Your task to perform on an android device: turn smart compose on in the gmail app Image 0: 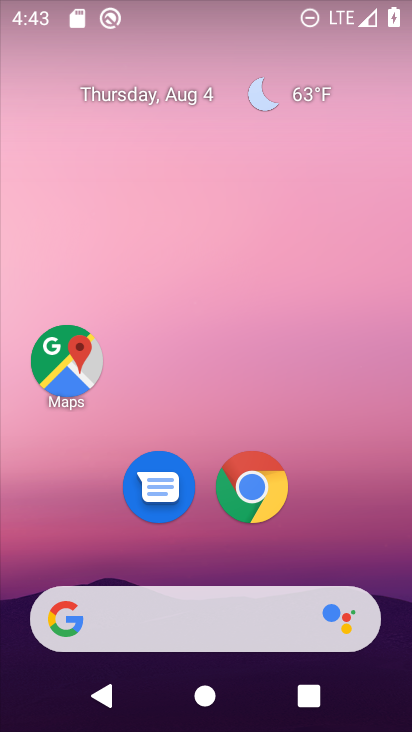
Step 0: drag from (174, 572) to (242, 55)
Your task to perform on an android device: turn smart compose on in the gmail app Image 1: 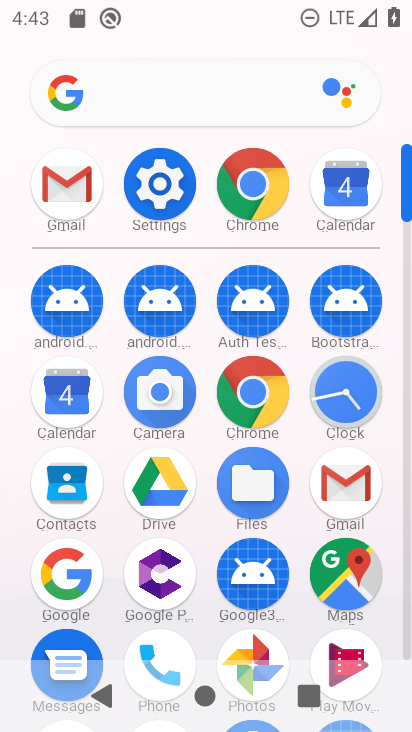
Step 1: click (67, 186)
Your task to perform on an android device: turn smart compose on in the gmail app Image 2: 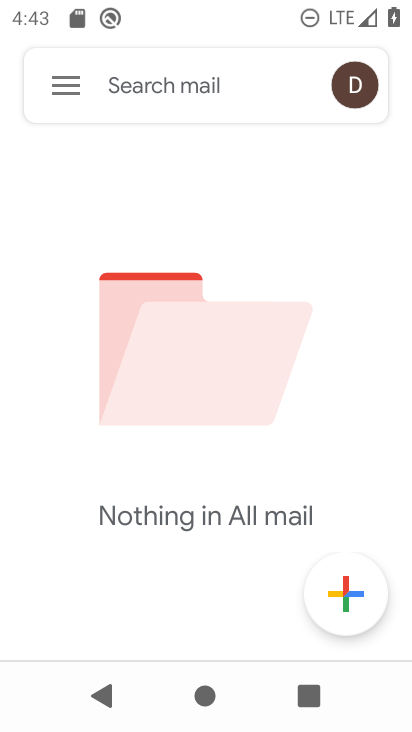
Step 2: click (57, 85)
Your task to perform on an android device: turn smart compose on in the gmail app Image 3: 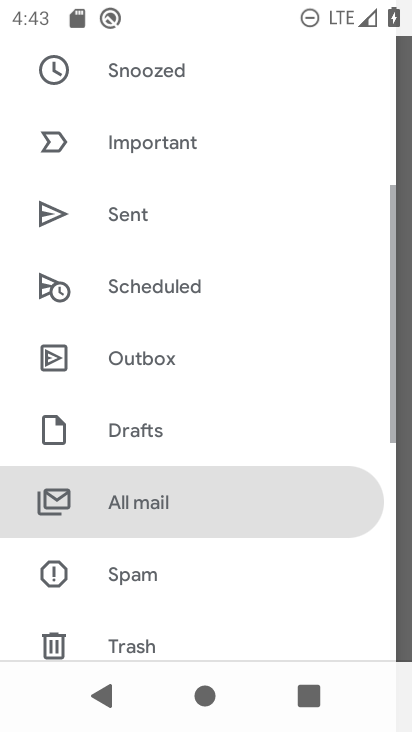
Step 3: drag from (187, 572) to (260, 12)
Your task to perform on an android device: turn smart compose on in the gmail app Image 4: 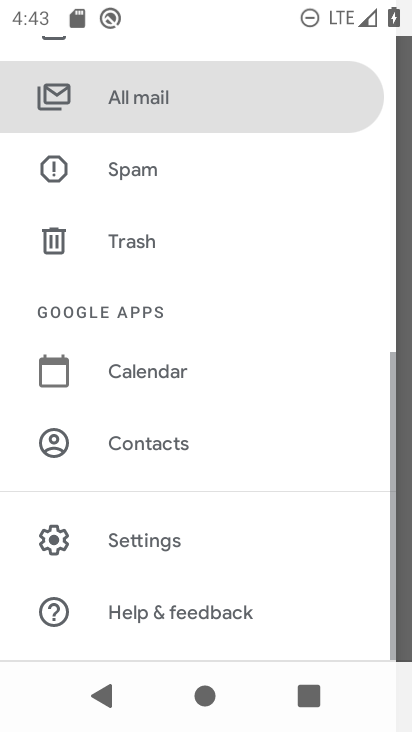
Step 4: click (167, 538)
Your task to perform on an android device: turn smart compose on in the gmail app Image 5: 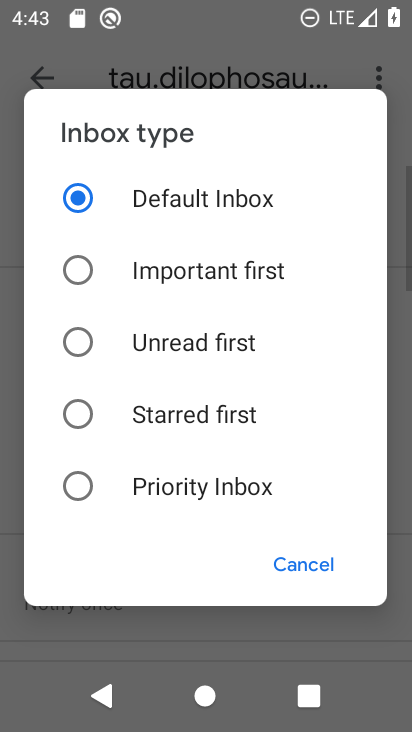
Step 5: click (273, 543)
Your task to perform on an android device: turn smart compose on in the gmail app Image 6: 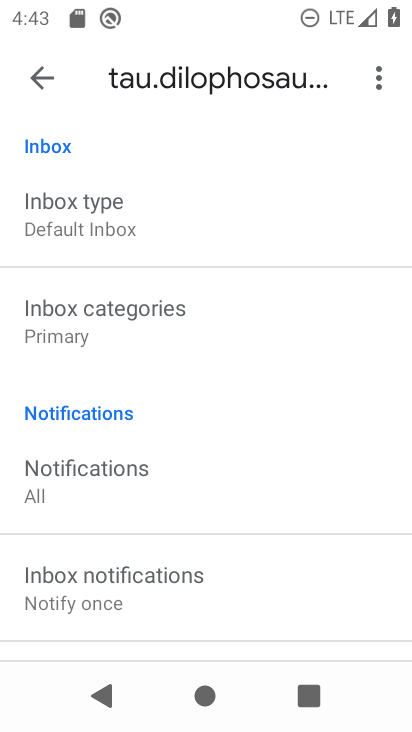
Step 6: click (224, 175)
Your task to perform on an android device: turn smart compose on in the gmail app Image 7: 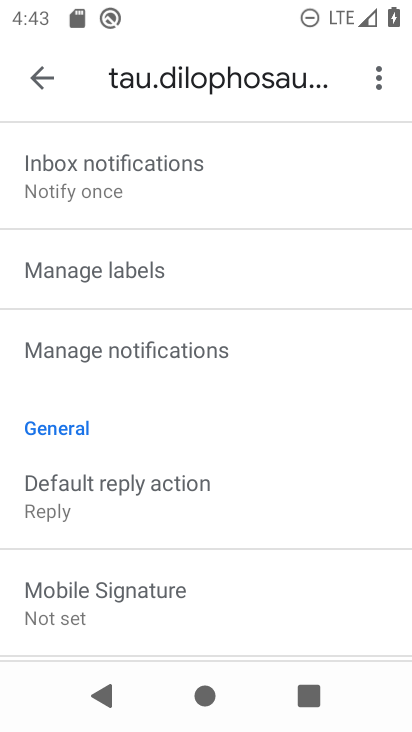
Step 7: task complete